Your task to perform on an android device: Search for sushi restaurants on Maps Image 0: 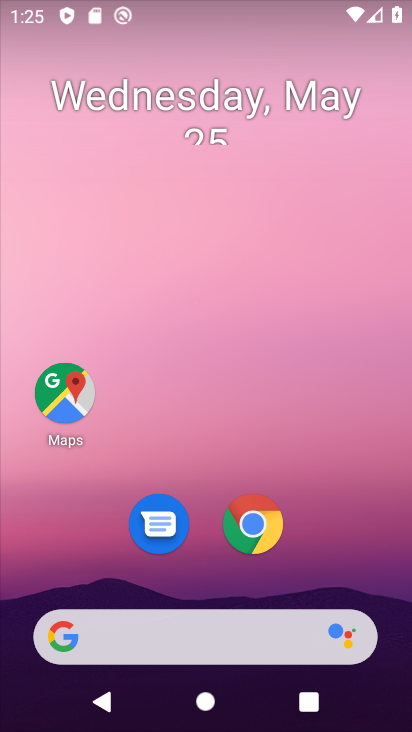
Step 0: click (67, 398)
Your task to perform on an android device: Search for sushi restaurants on Maps Image 1: 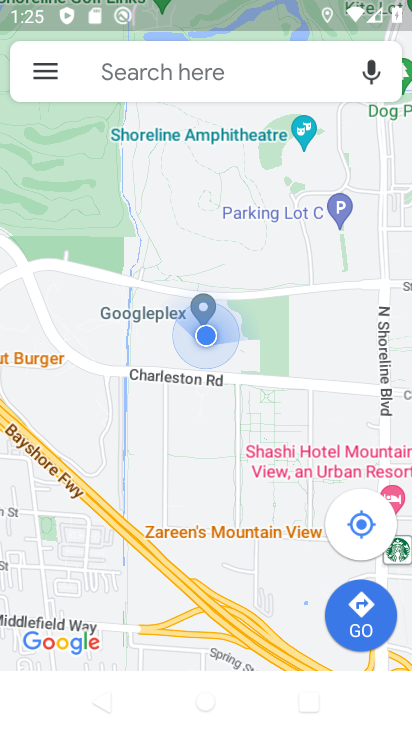
Step 1: click (208, 66)
Your task to perform on an android device: Search for sushi restaurants on Maps Image 2: 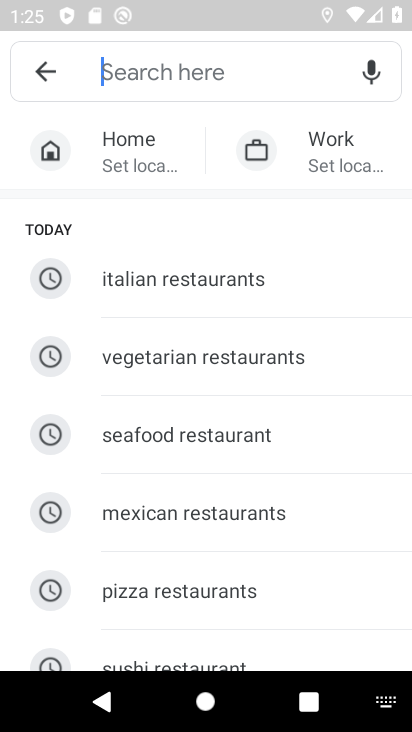
Step 2: drag from (227, 458) to (212, 273)
Your task to perform on an android device: Search for sushi restaurants on Maps Image 3: 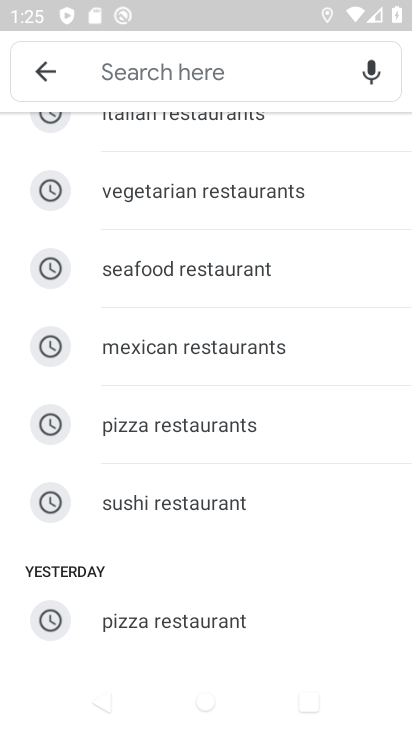
Step 3: click (172, 501)
Your task to perform on an android device: Search for sushi restaurants on Maps Image 4: 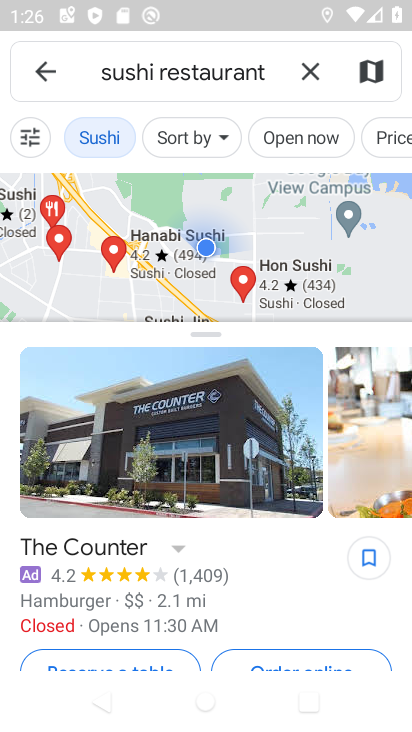
Step 4: task complete